Your task to perform on an android device: change text size in settings app Image 0: 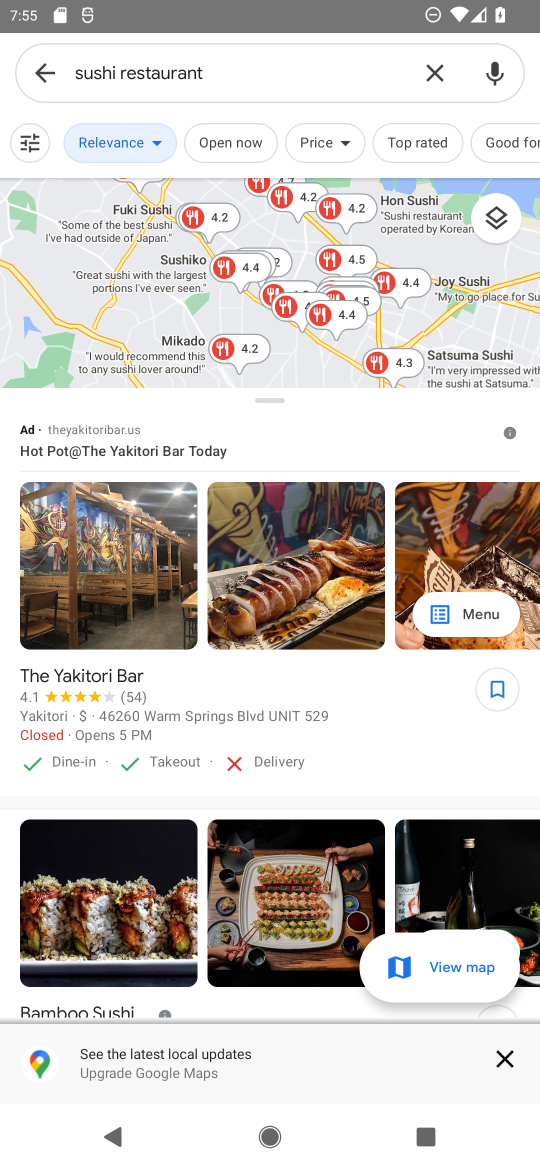
Step 0: press home button
Your task to perform on an android device: change text size in settings app Image 1: 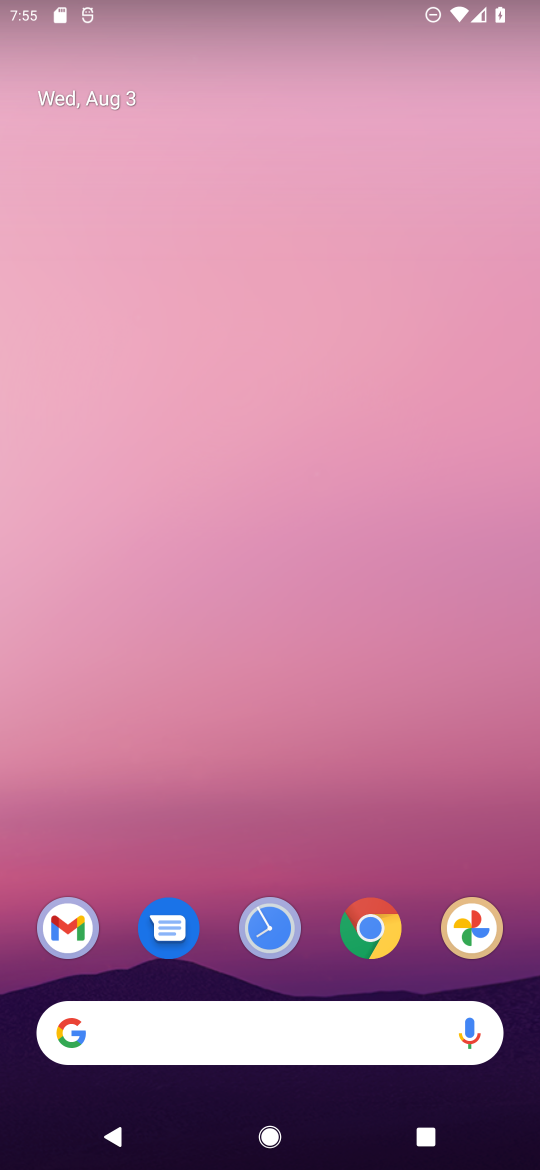
Step 1: drag from (410, 849) to (307, 126)
Your task to perform on an android device: change text size in settings app Image 2: 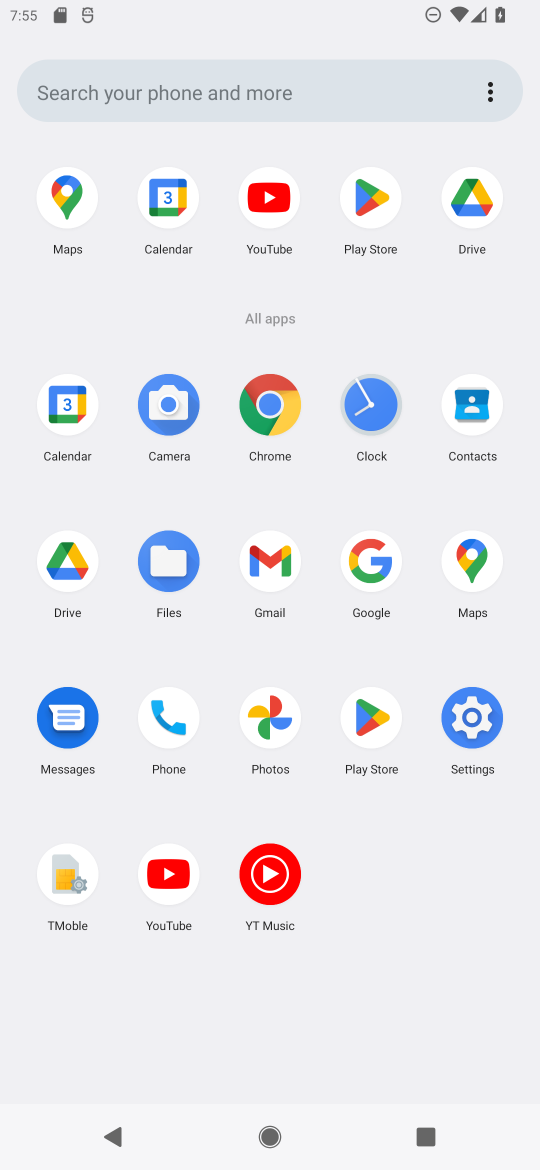
Step 2: click (473, 728)
Your task to perform on an android device: change text size in settings app Image 3: 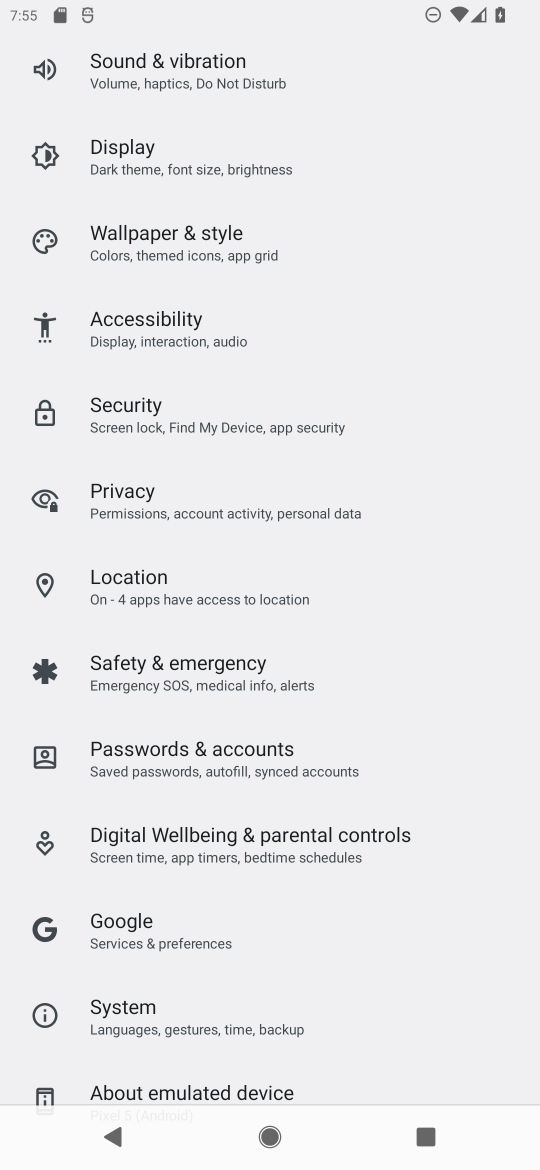
Step 3: click (248, 147)
Your task to perform on an android device: change text size in settings app Image 4: 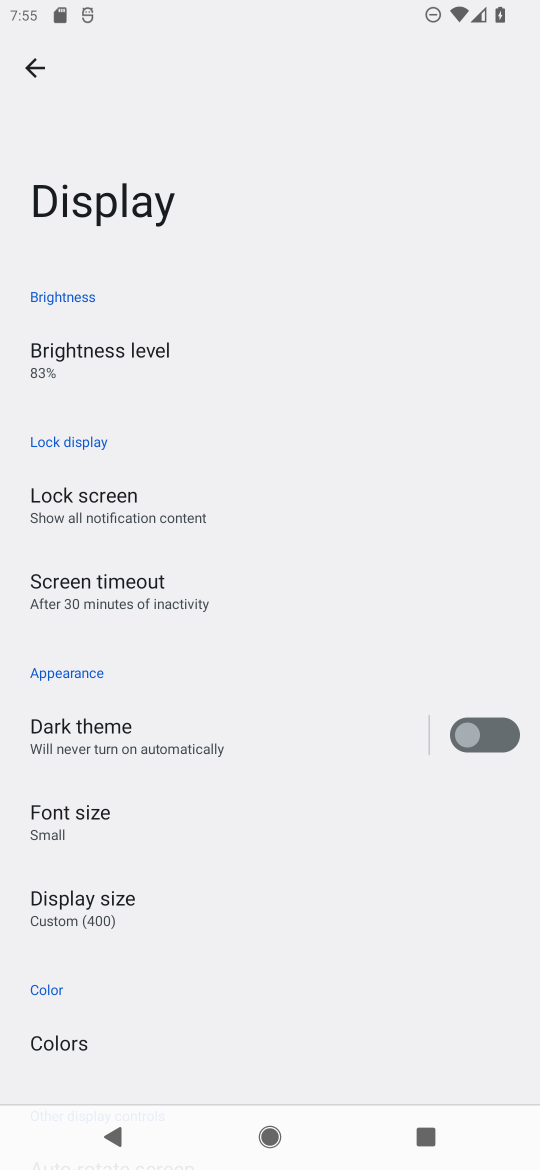
Step 4: click (244, 820)
Your task to perform on an android device: change text size in settings app Image 5: 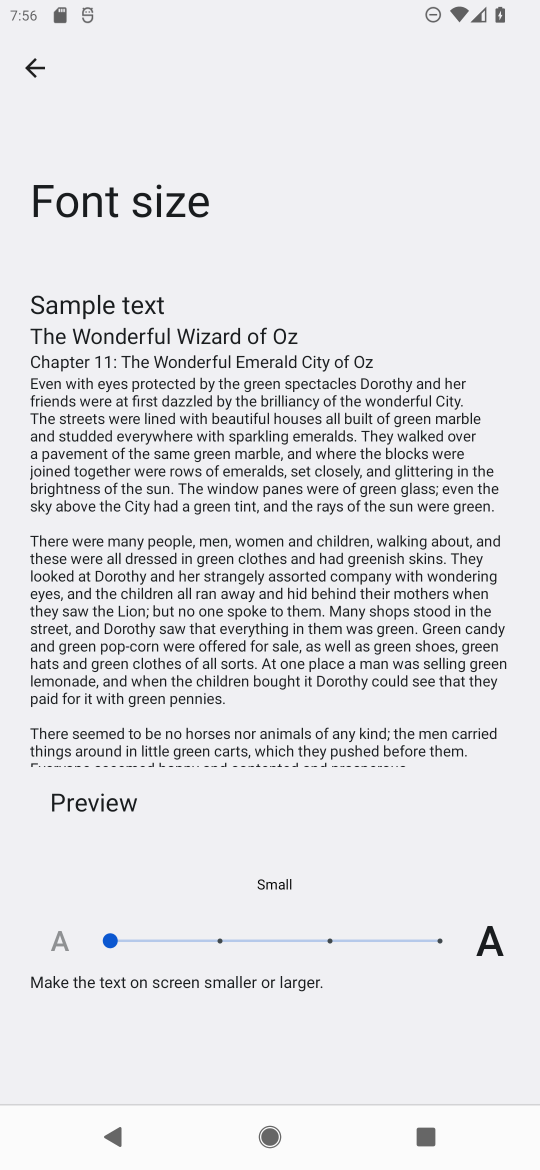
Step 5: click (331, 945)
Your task to perform on an android device: change text size in settings app Image 6: 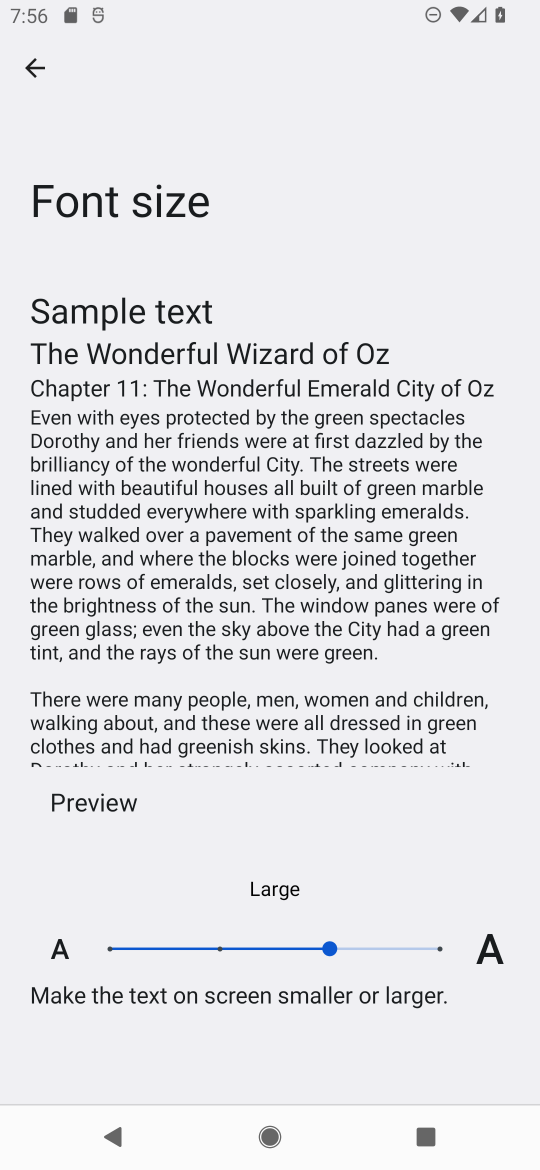
Step 6: task complete